Your task to perform on an android device: Search for dell xps on newegg.com, select the first entry, add it to the cart, then select checkout. Image 0: 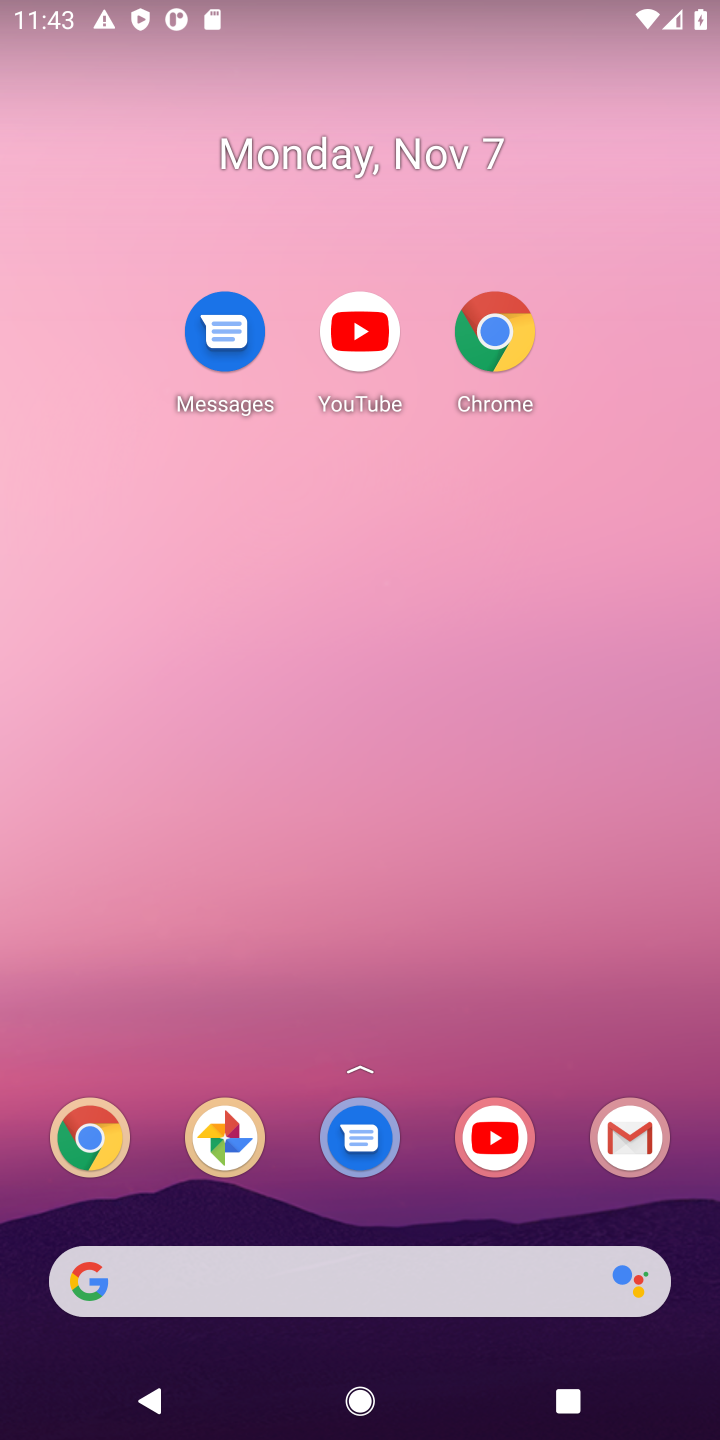
Step 0: drag from (428, 1212) to (419, 240)
Your task to perform on an android device: Search for dell xps on newegg.com, select the first entry, add it to the cart, then select checkout. Image 1: 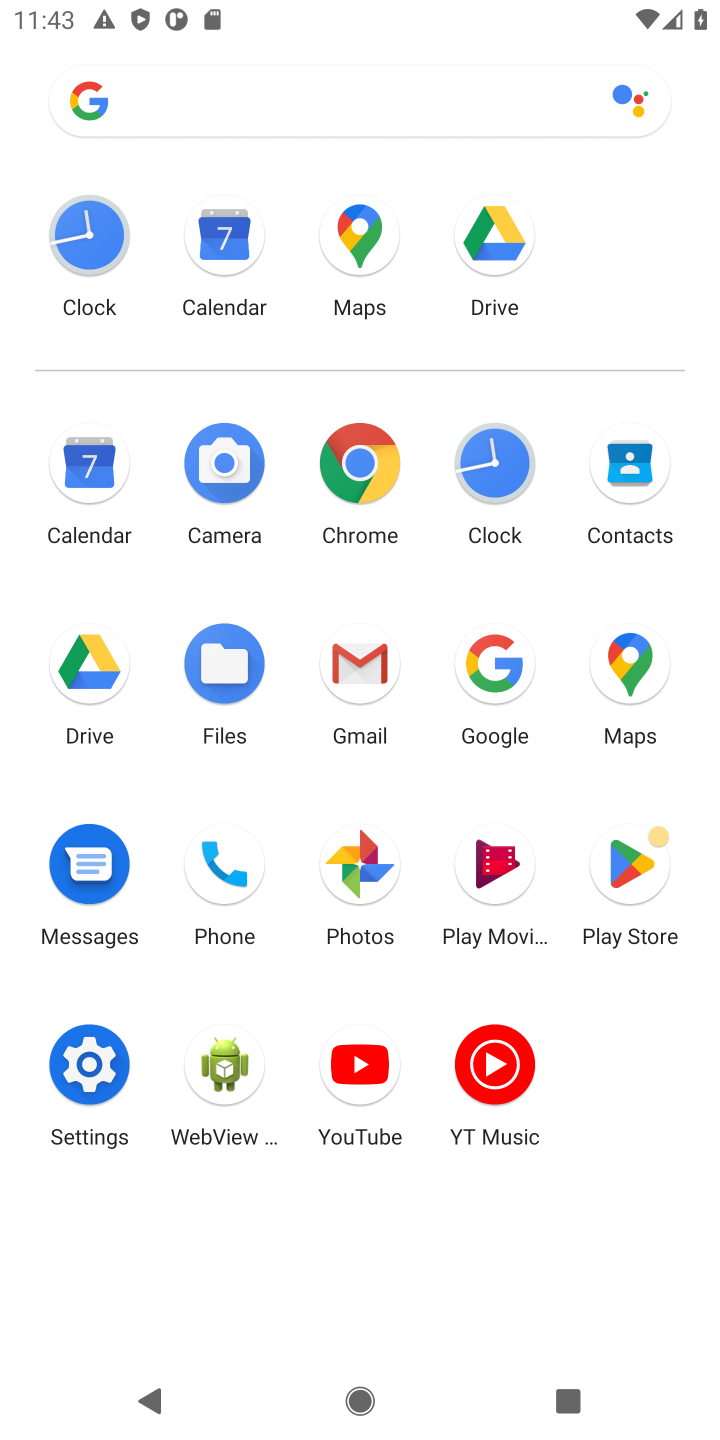
Step 1: click (363, 460)
Your task to perform on an android device: Search for dell xps on newegg.com, select the first entry, add it to the cart, then select checkout. Image 2: 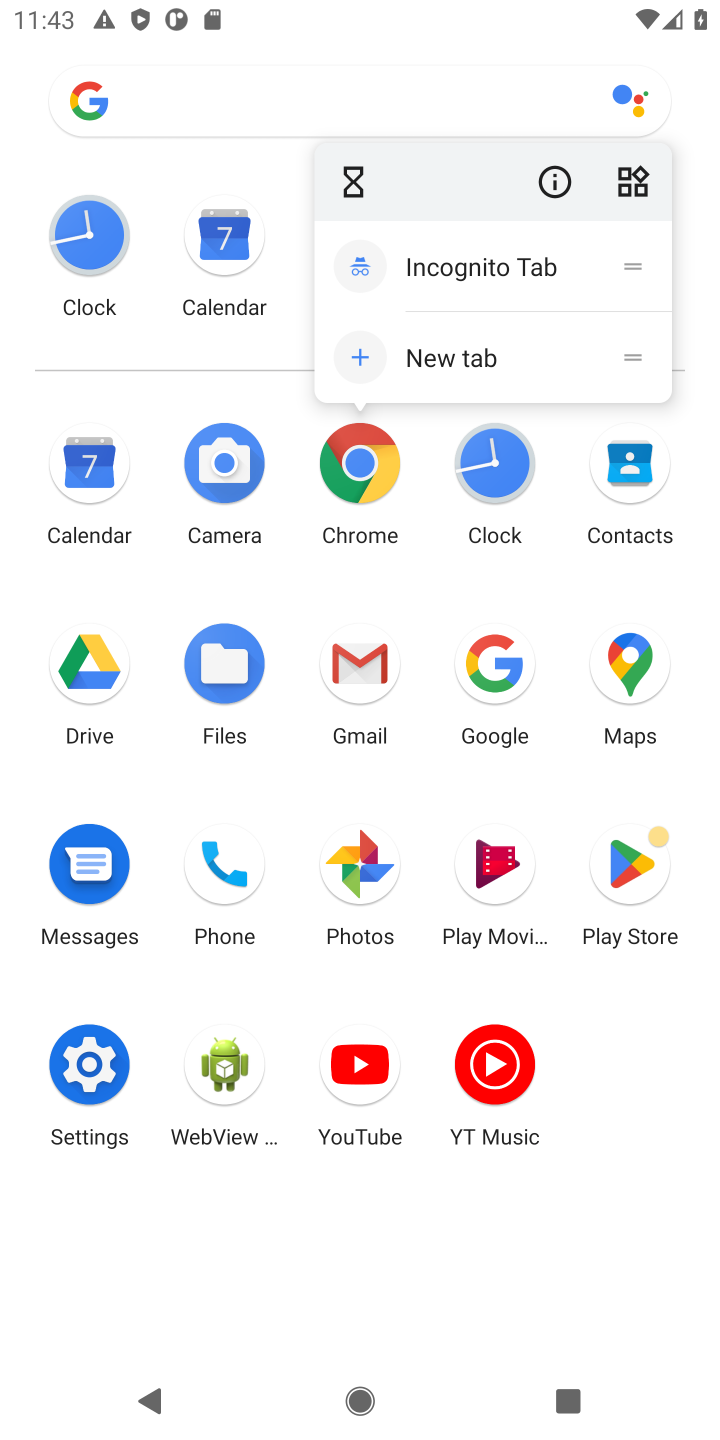
Step 2: click (360, 477)
Your task to perform on an android device: Search for dell xps on newegg.com, select the first entry, add it to the cart, then select checkout. Image 3: 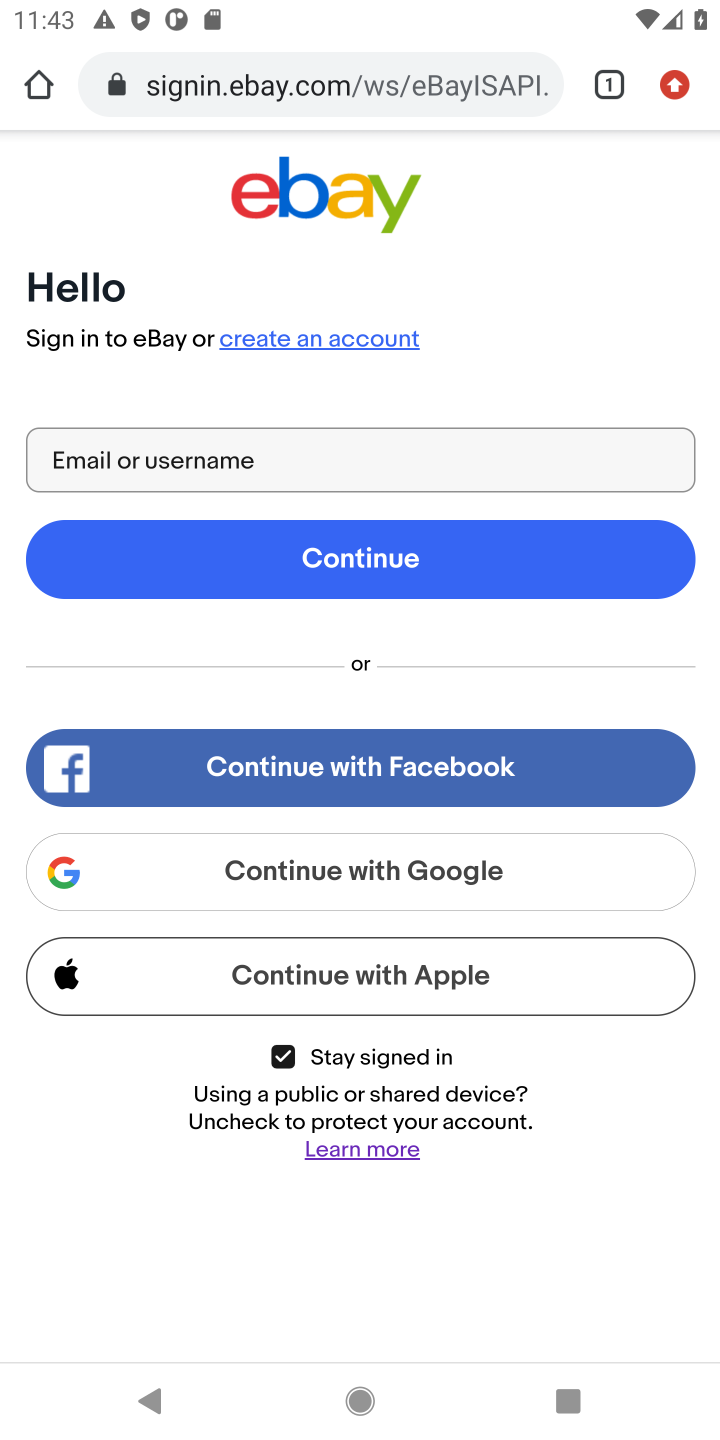
Step 3: click (397, 74)
Your task to perform on an android device: Search for dell xps on newegg.com, select the first entry, add it to the cart, then select checkout. Image 4: 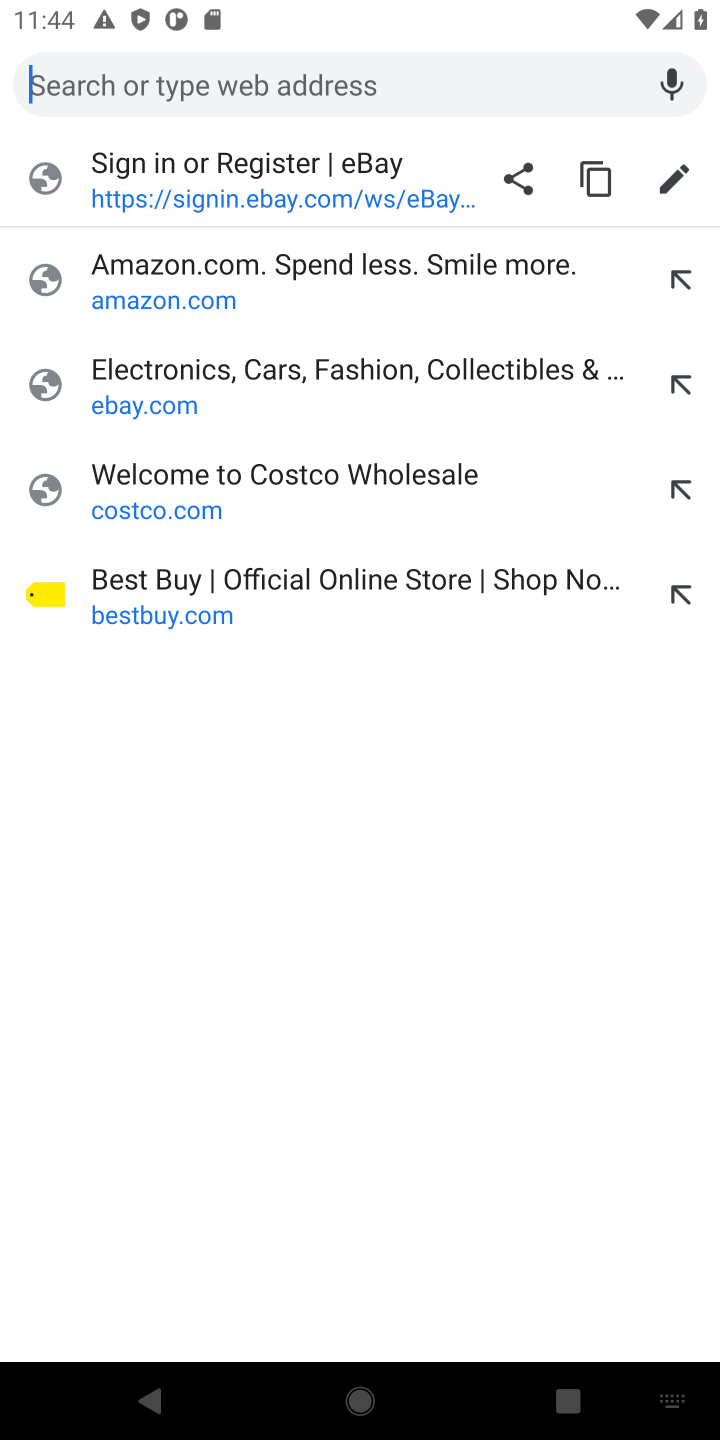
Step 4: type "newegg.com"
Your task to perform on an android device: Search for dell xps on newegg.com, select the first entry, add it to the cart, then select checkout. Image 5: 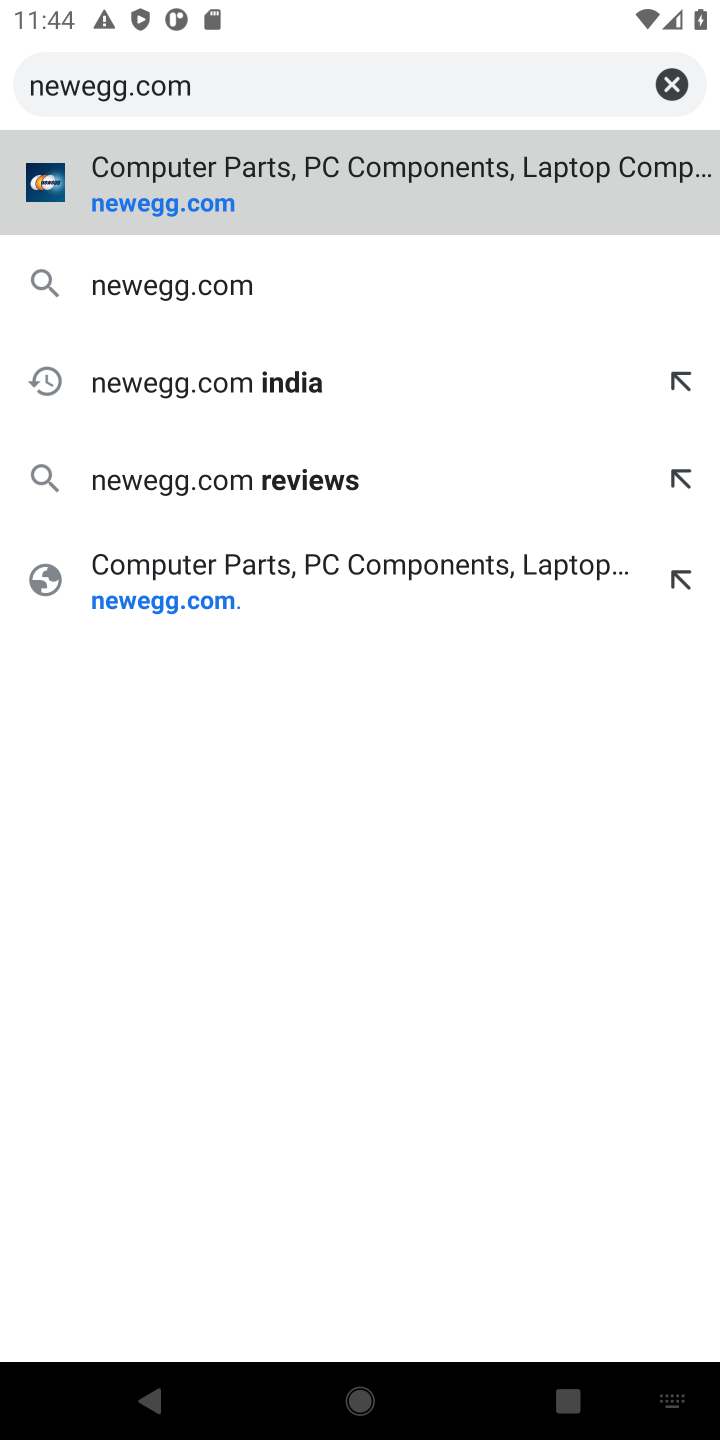
Step 5: press enter
Your task to perform on an android device: Search for dell xps on newegg.com, select the first entry, add it to the cart, then select checkout. Image 6: 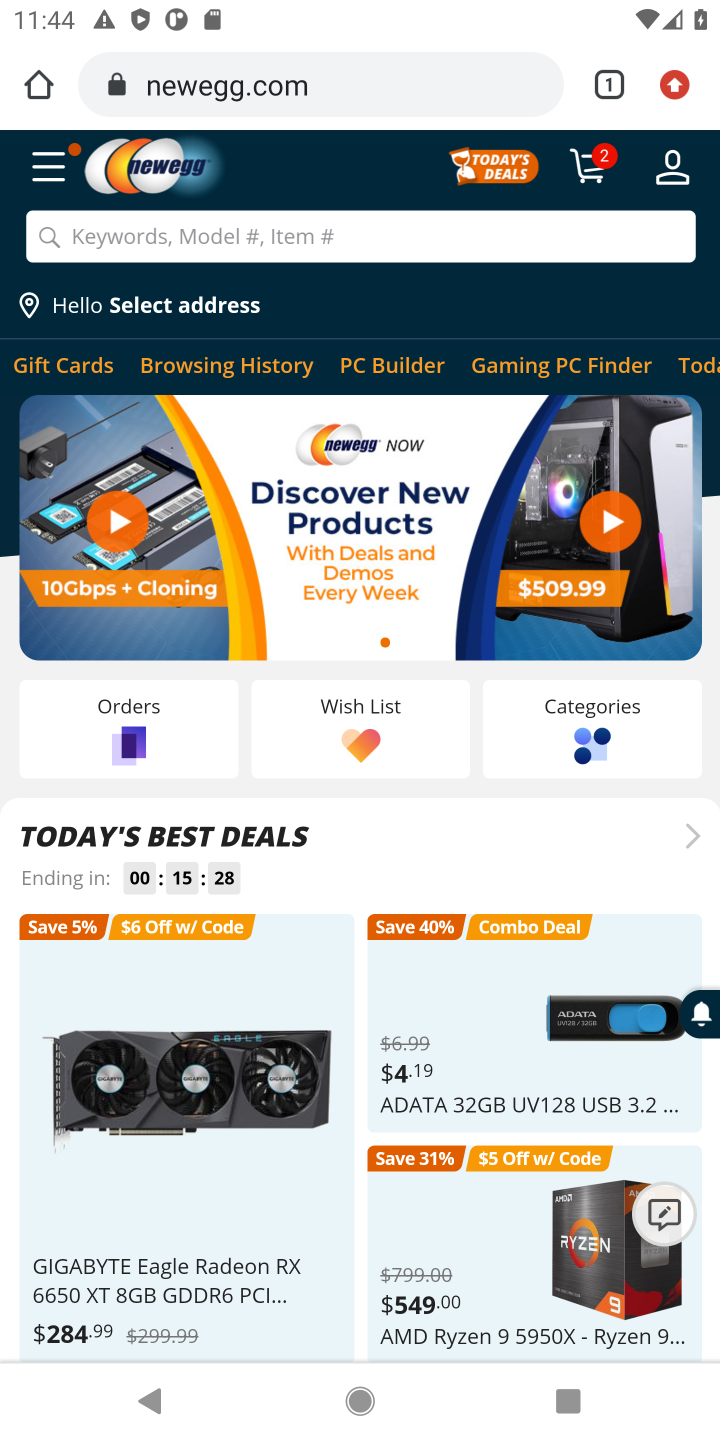
Step 6: click (422, 220)
Your task to perform on an android device: Search for dell xps on newegg.com, select the first entry, add it to the cart, then select checkout. Image 7: 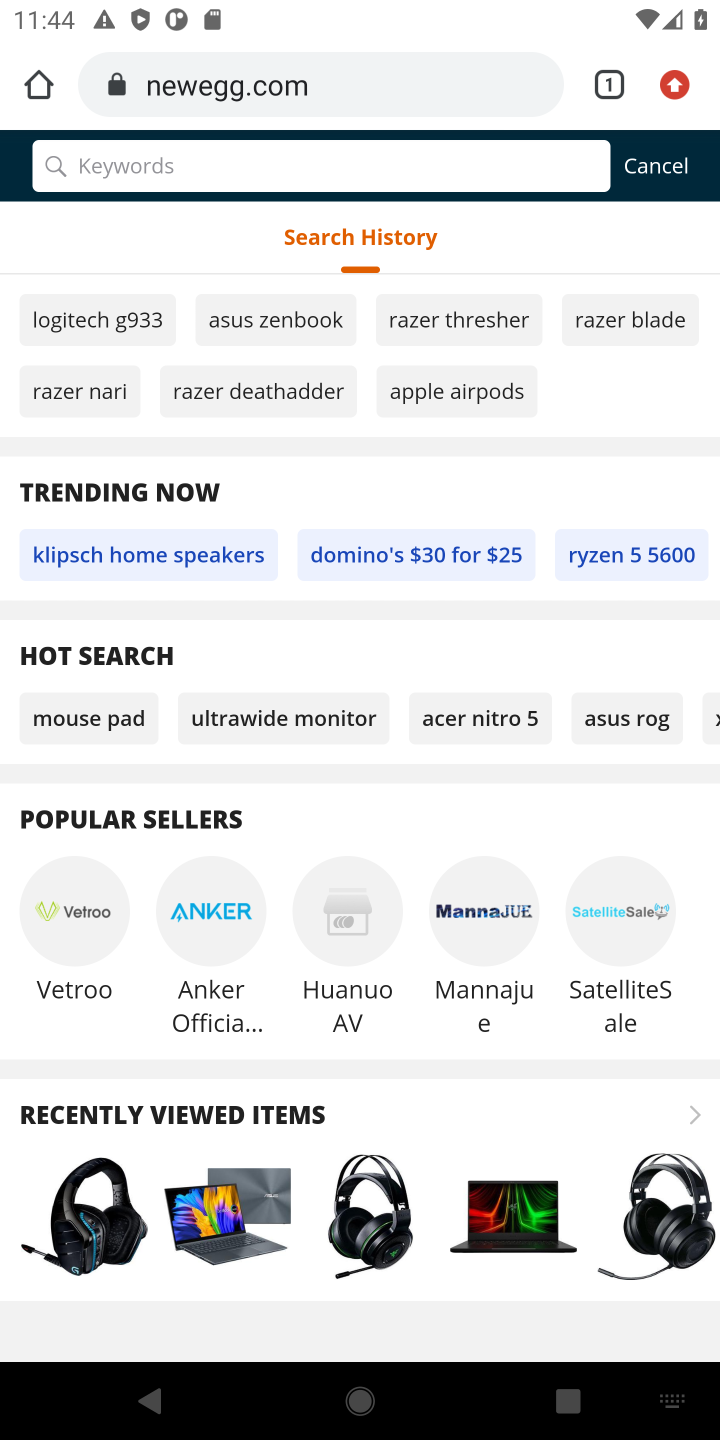
Step 7: press enter
Your task to perform on an android device: Search for dell xps on newegg.com, select the first entry, add it to the cart, then select checkout. Image 8: 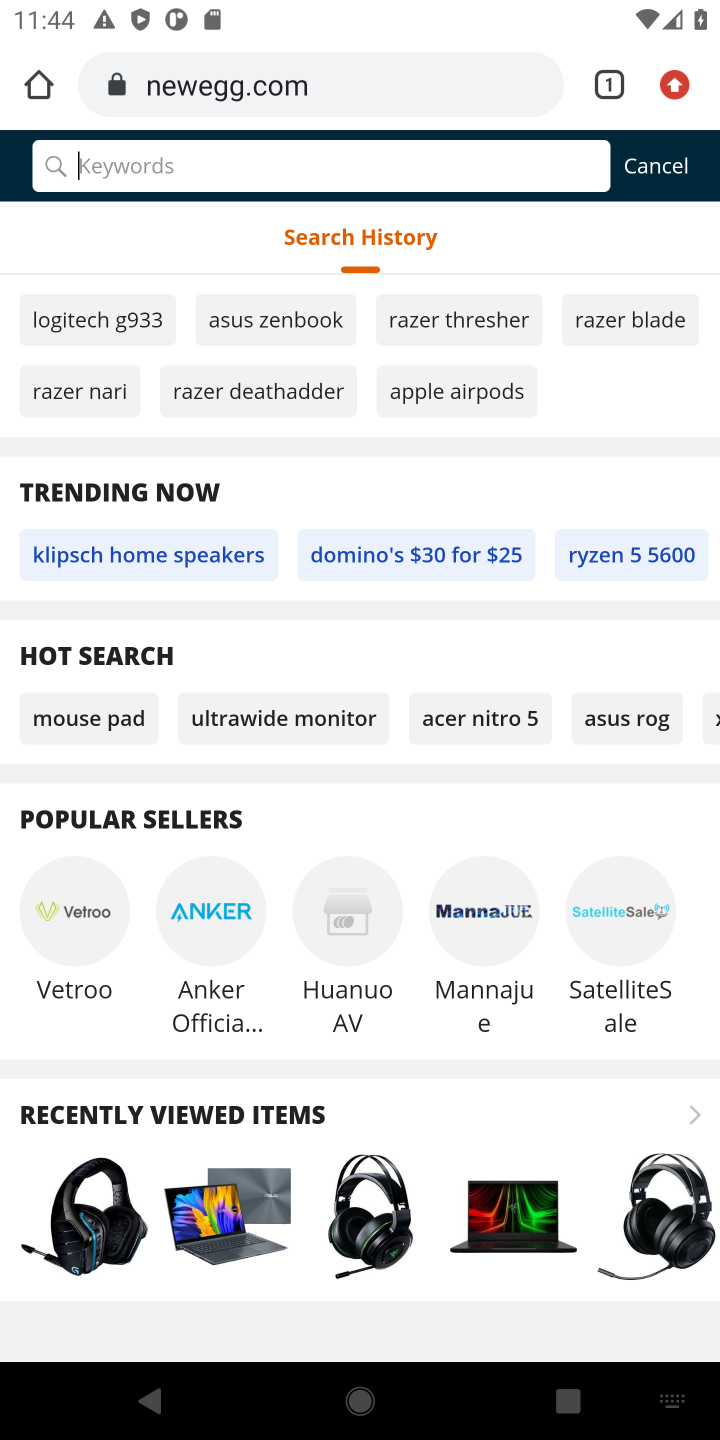
Step 8: type "dell xps"
Your task to perform on an android device: Search for dell xps on newegg.com, select the first entry, add it to the cart, then select checkout. Image 9: 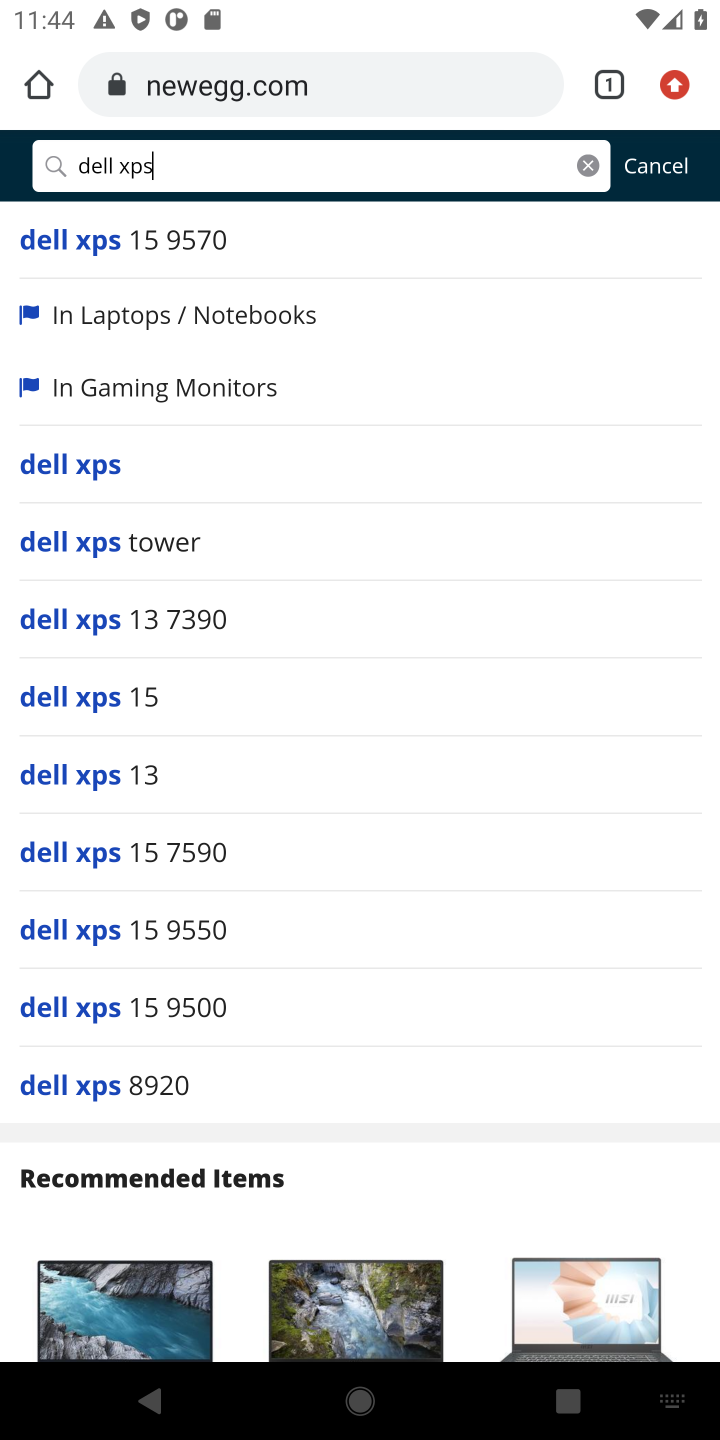
Step 9: press enter
Your task to perform on an android device: Search for dell xps on newegg.com, select the first entry, add it to the cart, then select checkout. Image 10: 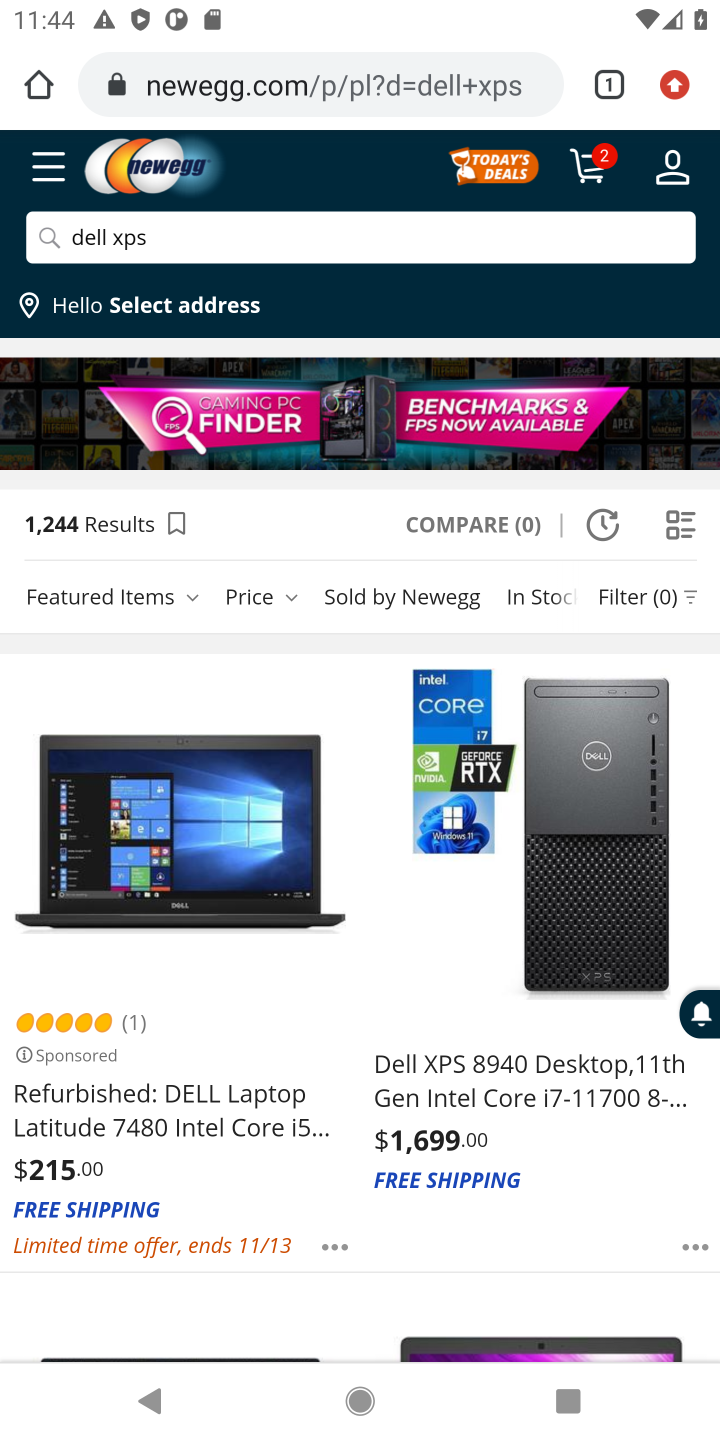
Step 10: click (562, 1067)
Your task to perform on an android device: Search for dell xps on newegg.com, select the first entry, add it to the cart, then select checkout. Image 11: 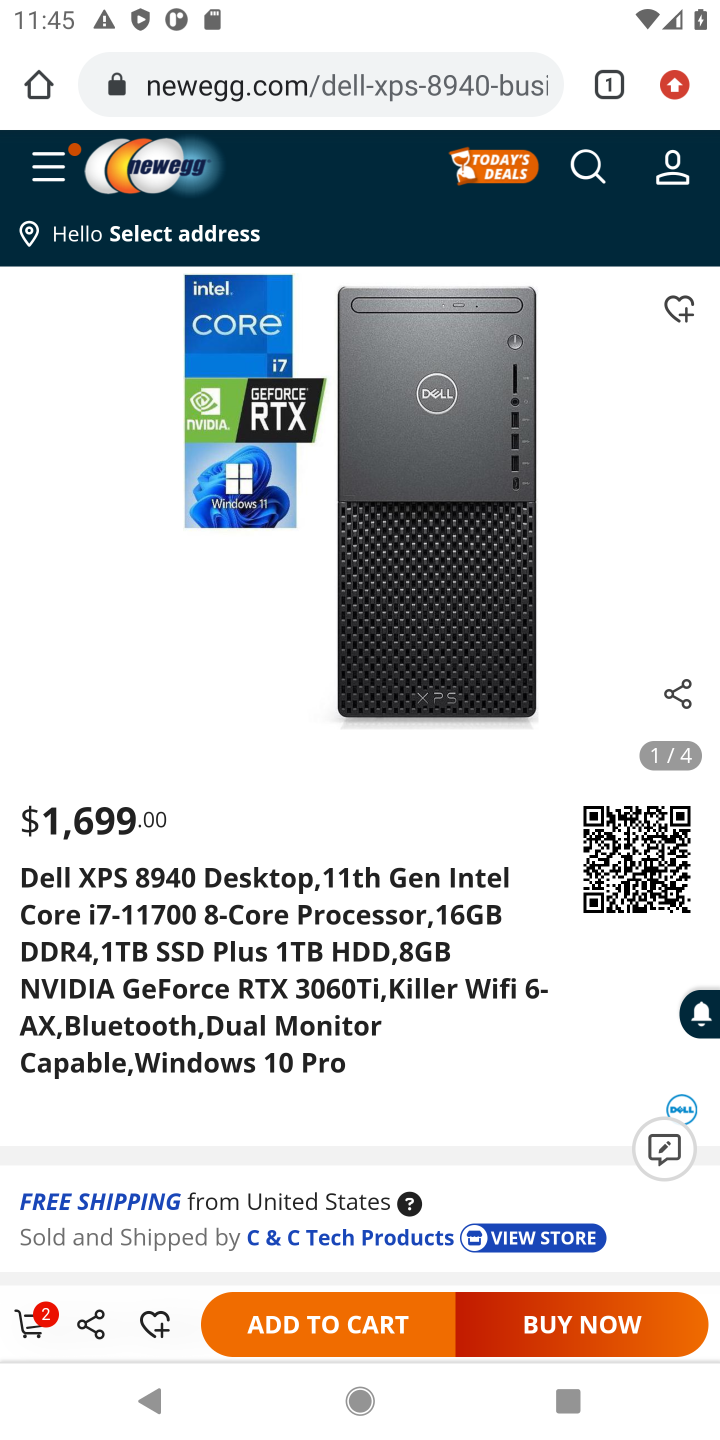
Step 11: click (354, 1342)
Your task to perform on an android device: Search for dell xps on newegg.com, select the first entry, add it to the cart, then select checkout. Image 12: 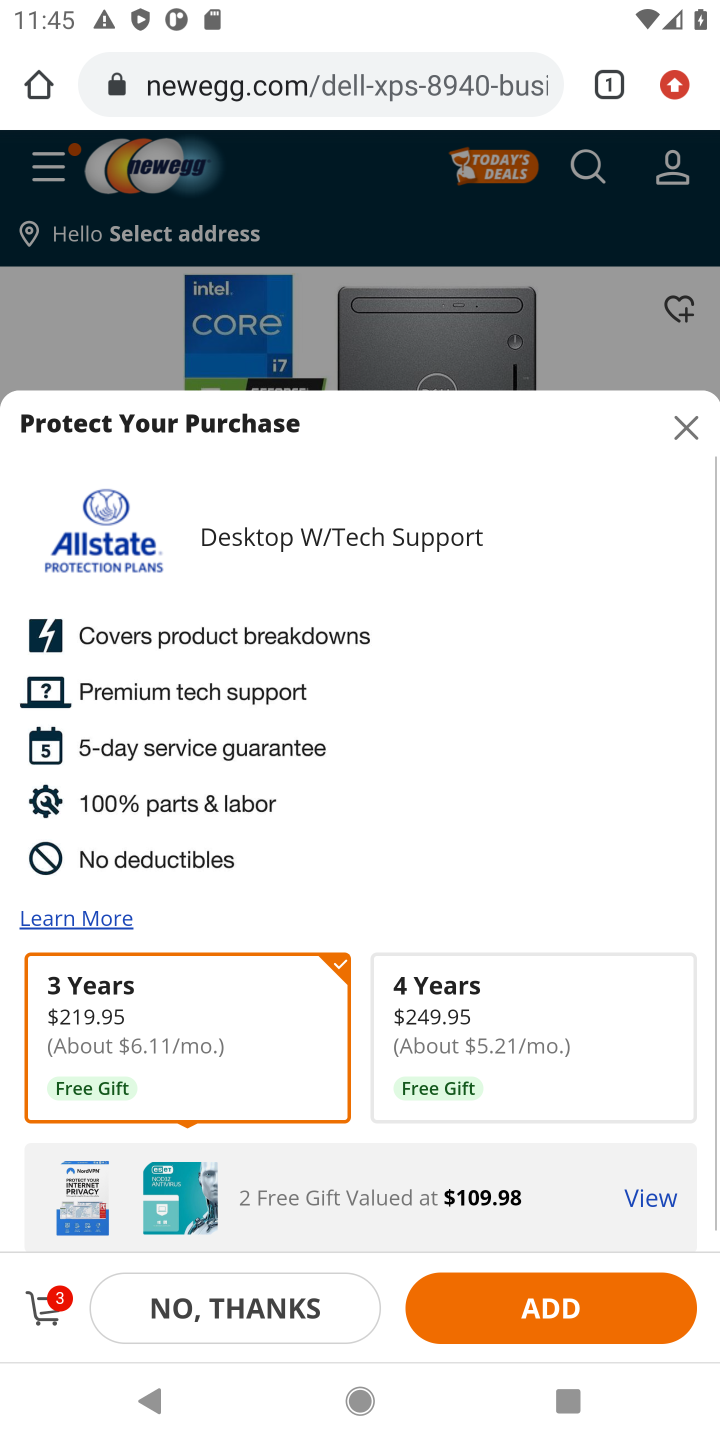
Step 12: click (57, 1299)
Your task to perform on an android device: Search for dell xps on newegg.com, select the first entry, add it to the cart, then select checkout. Image 13: 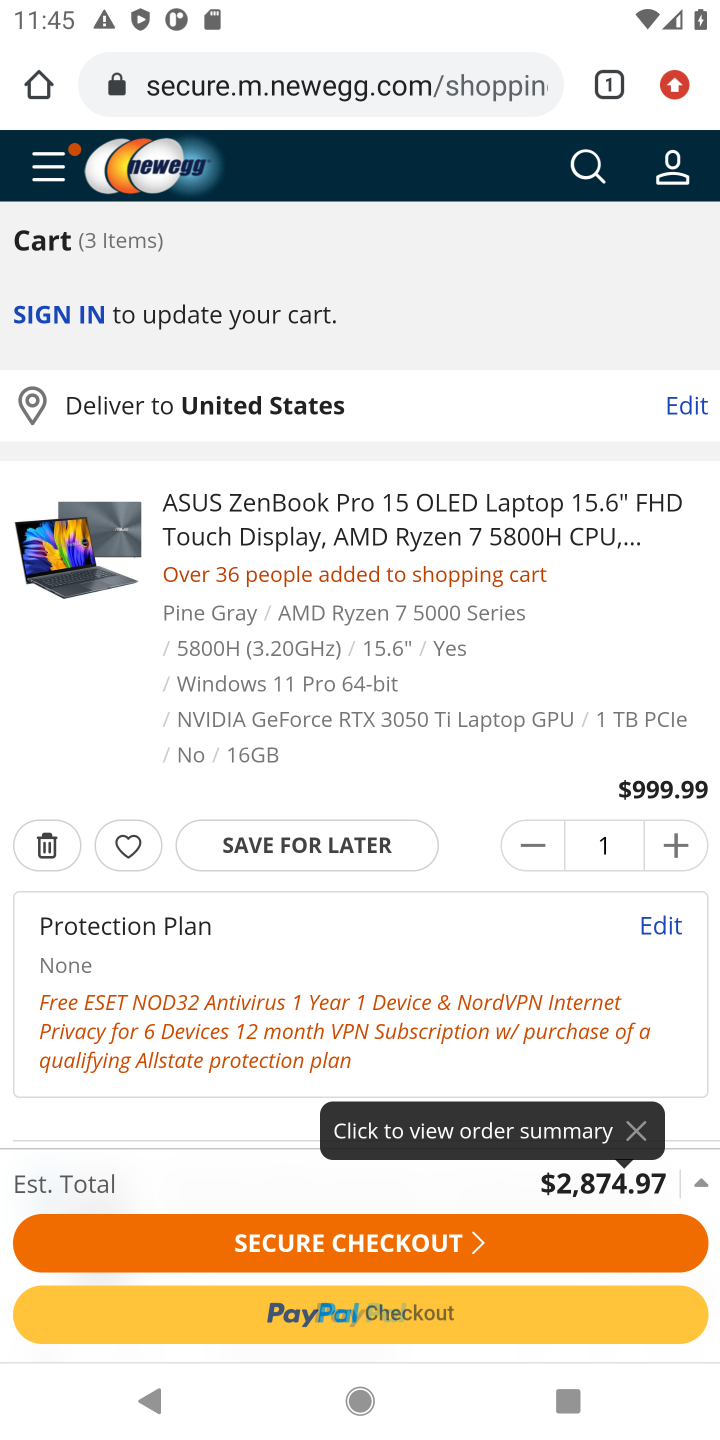
Step 13: click (402, 1252)
Your task to perform on an android device: Search for dell xps on newegg.com, select the first entry, add it to the cart, then select checkout. Image 14: 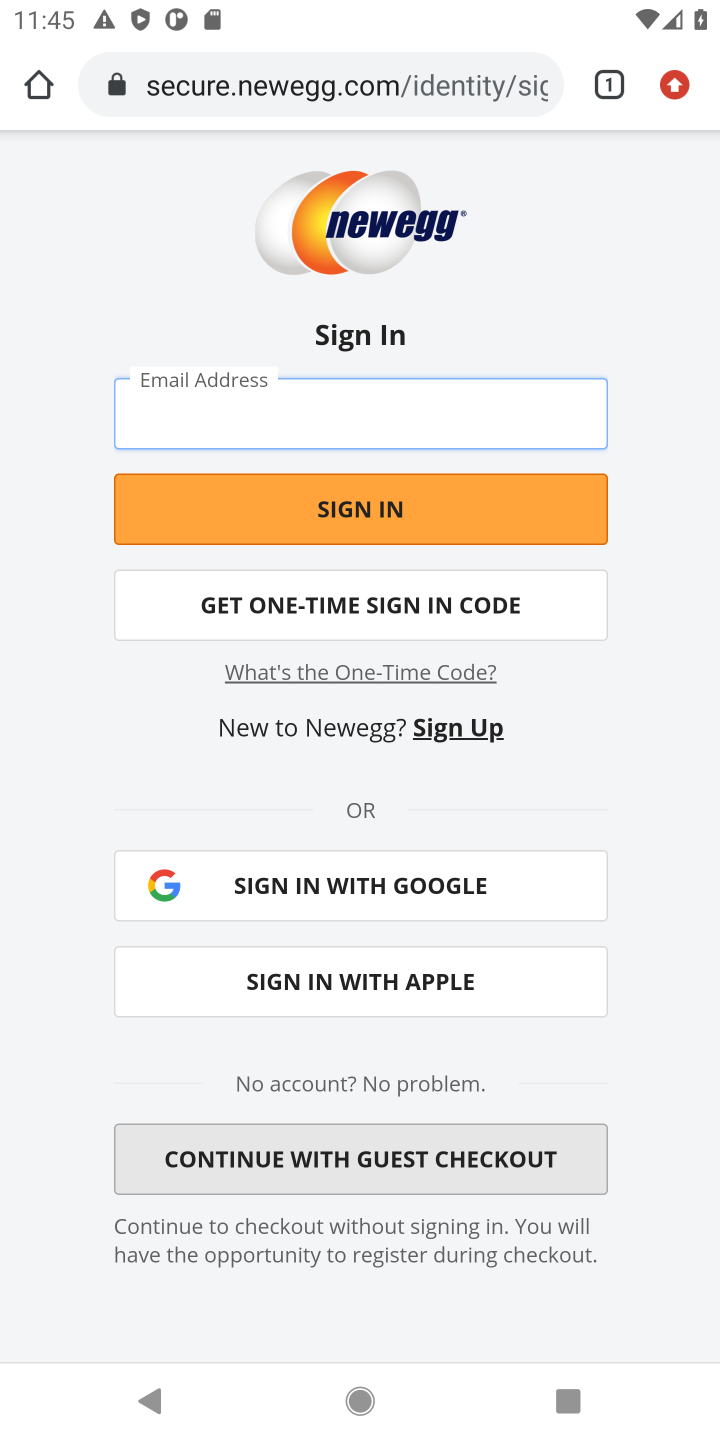
Step 14: task complete